Your task to perform on an android device: turn on data saver in the chrome app Image 0: 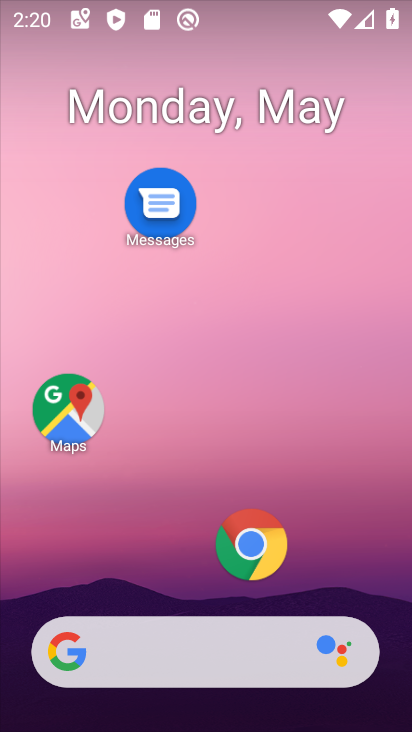
Step 0: click (228, 555)
Your task to perform on an android device: turn on data saver in the chrome app Image 1: 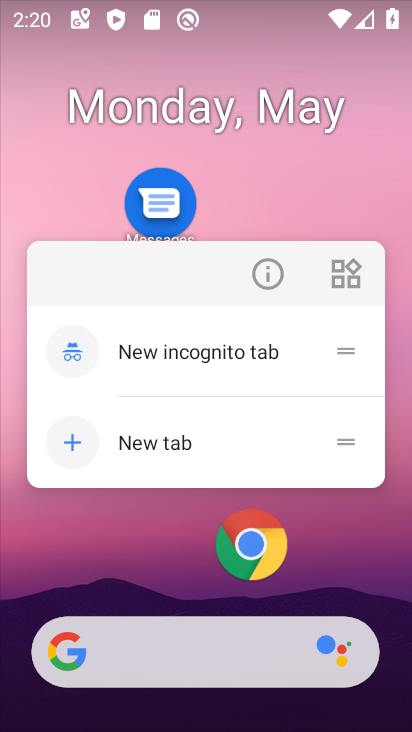
Step 1: click (260, 562)
Your task to perform on an android device: turn on data saver in the chrome app Image 2: 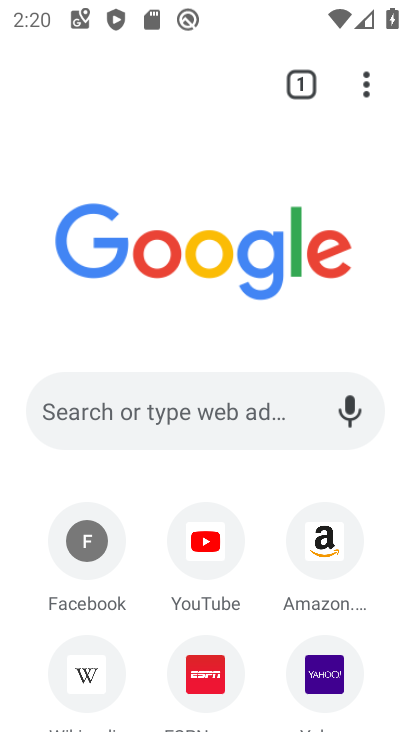
Step 2: drag from (363, 81) to (131, 568)
Your task to perform on an android device: turn on data saver in the chrome app Image 3: 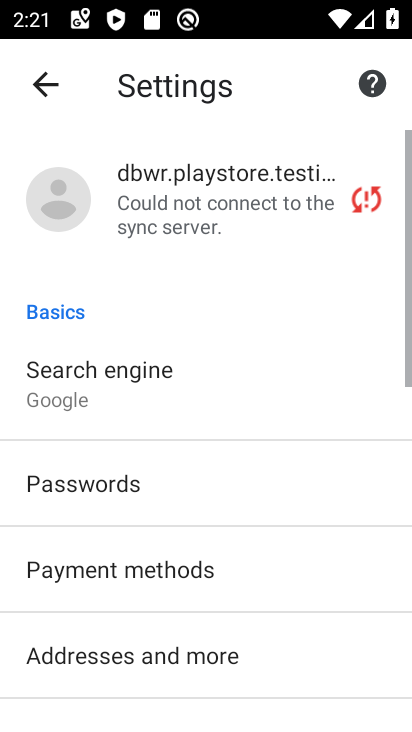
Step 3: drag from (151, 584) to (171, 365)
Your task to perform on an android device: turn on data saver in the chrome app Image 4: 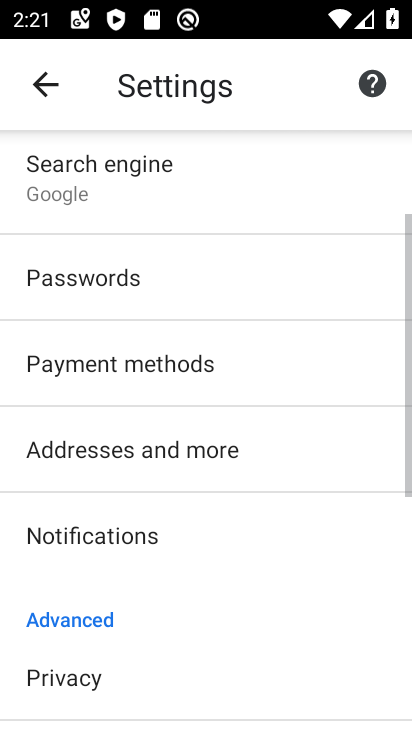
Step 4: drag from (182, 580) to (181, 334)
Your task to perform on an android device: turn on data saver in the chrome app Image 5: 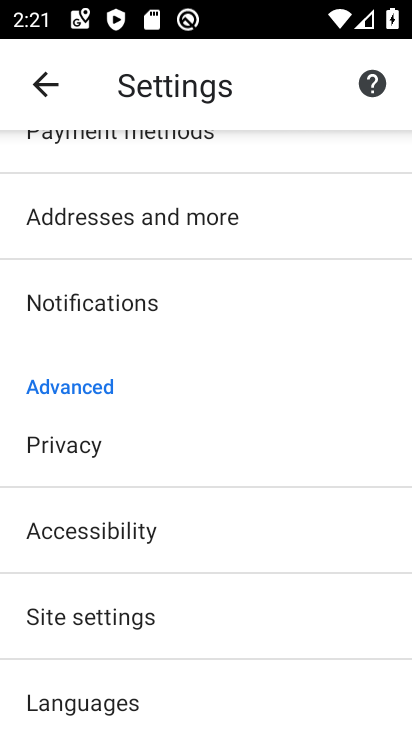
Step 5: click (172, 621)
Your task to perform on an android device: turn on data saver in the chrome app Image 6: 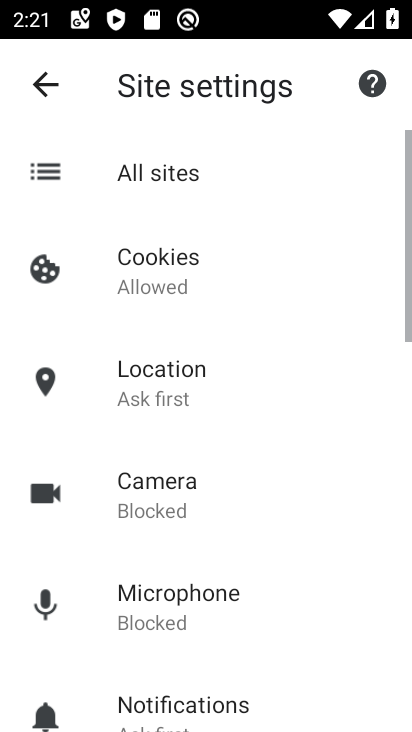
Step 6: drag from (176, 616) to (209, 384)
Your task to perform on an android device: turn on data saver in the chrome app Image 7: 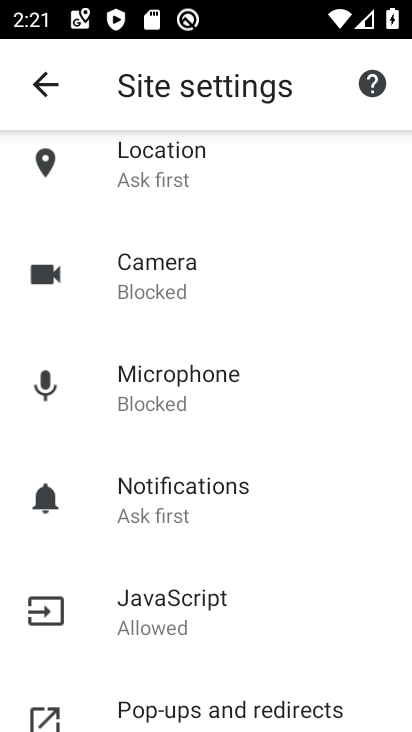
Step 7: drag from (190, 613) to (254, 384)
Your task to perform on an android device: turn on data saver in the chrome app Image 8: 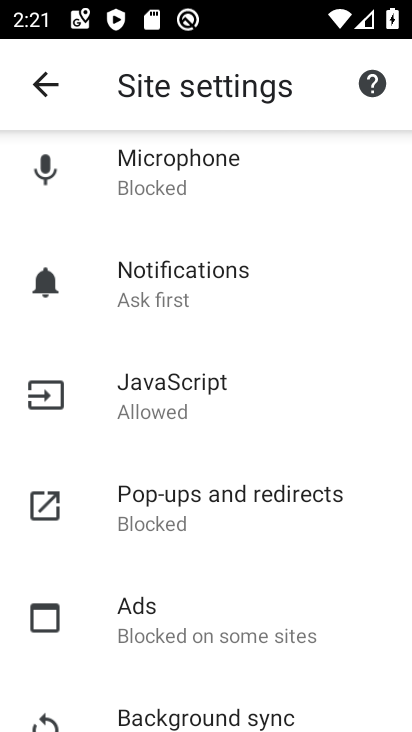
Step 8: drag from (247, 392) to (247, 636)
Your task to perform on an android device: turn on data saver in the chrome app Image 9: 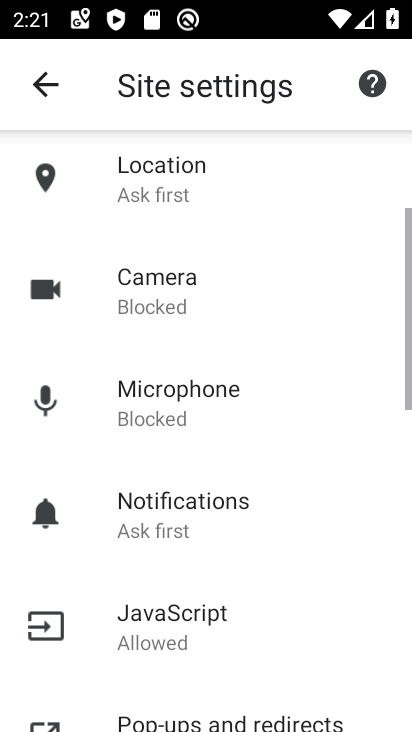
Step 9: drag from (232, 336) to (228, 613)
Your task to perform on an android device: turn on data saver in the chrome app Image 10: 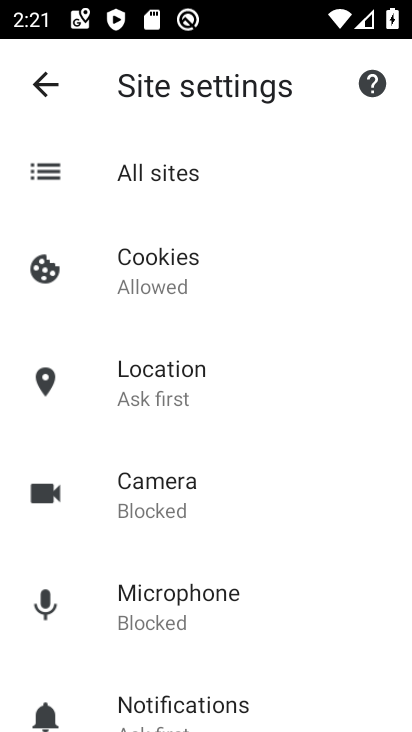
Step 10: drag from (222, 397) to (221, 591)
Your task to perform on an android device: turn on data saver in the chrome app Image 11: 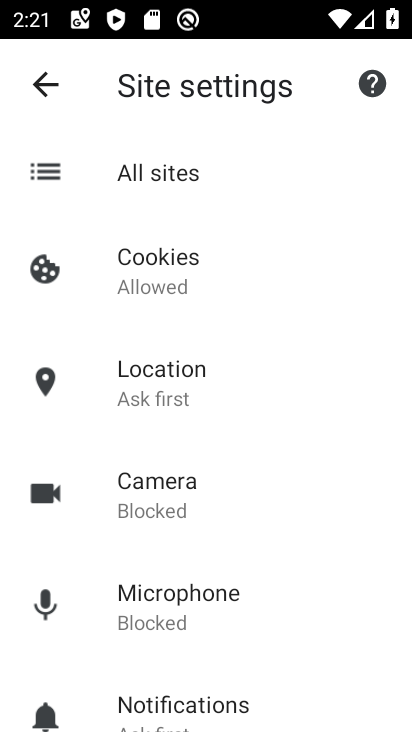
Step 11: drag from (235, 336) to (235, 558)
Your task to perform on an android device: turn on data saver in the chrome app Image 12: 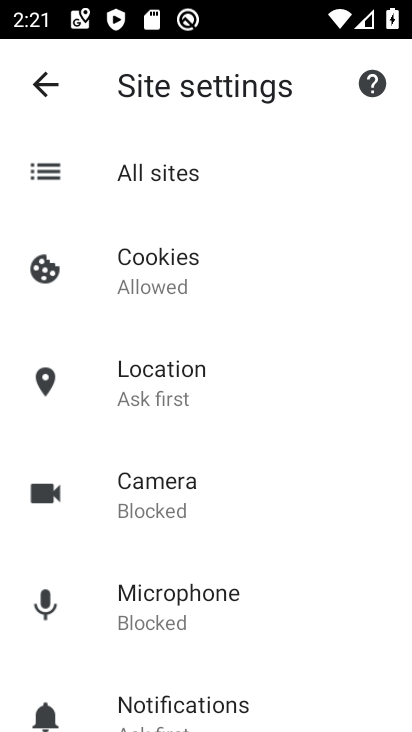
Step 12: drag from (253, 631) to (251, 361)
Your task to perform on an android device: turn on data saver in the chrome app Image 13: 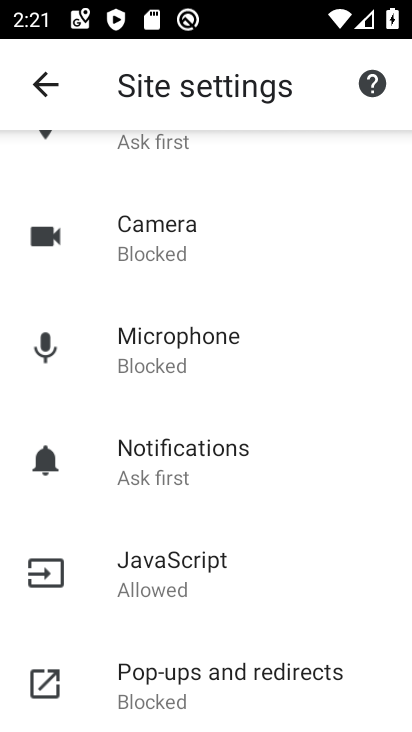
Step 13: drag from (173, 584) to (212, 328)
Your task to perform on an android device: turn on data saver in the chrome app Image 14: 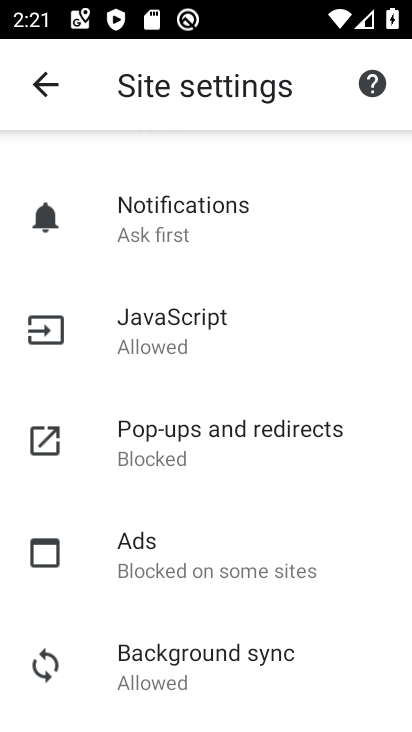
Step 14: press back button
Your task to perform on an android device: turn on data saver in the chrome app Image 15: 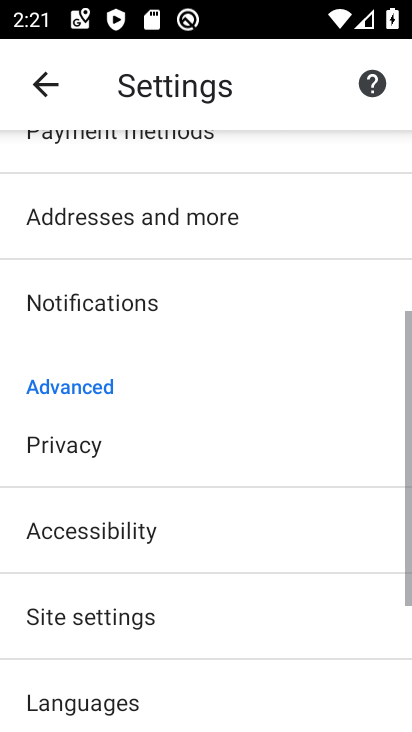
Step 15: drag from (151, 599) to (168, 339)
Your task to perform on an android device: turn on data saver in the chrome app Image 16: 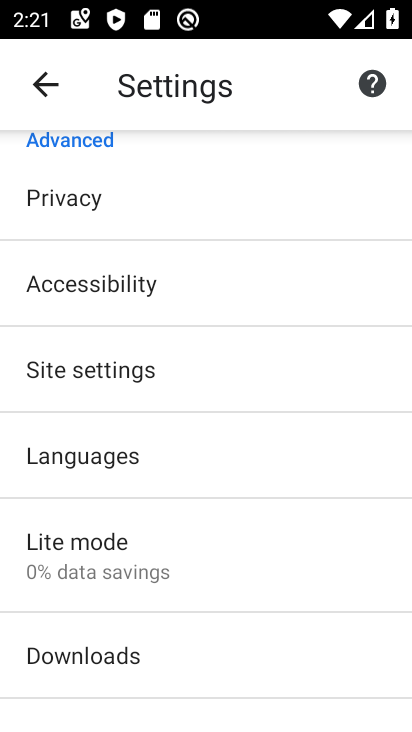
Step 16: click (113, 551)
Your task to perform on an android device: turn on data saver in the chrome app Image 17: 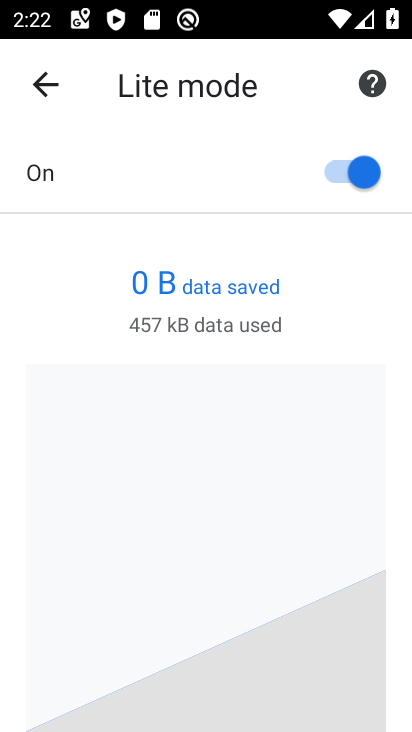
Step 17: task complete